Your task to perform on an android device: change text size in settings app Image 0: 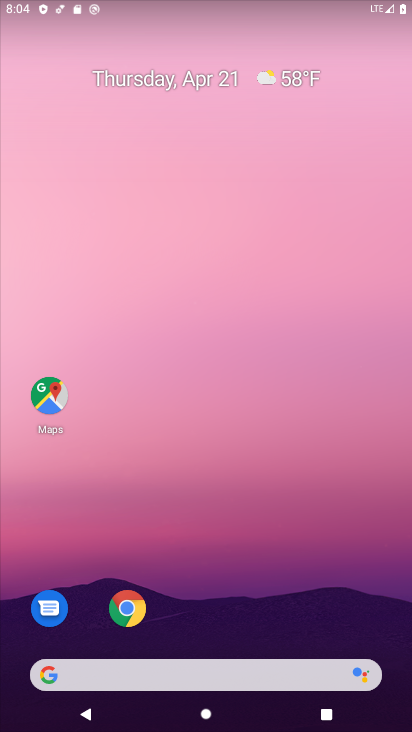
Step 0: drag from (323, 612) to (323, 81)
Your task to perform on an android device: change text size in settings app Image 1: 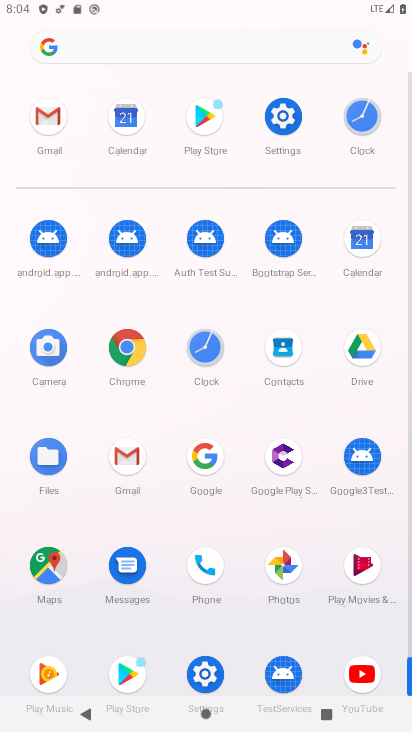
Step 1: click (286, 113)
Your task to perform on an android device: change text size in settings app Image 2: 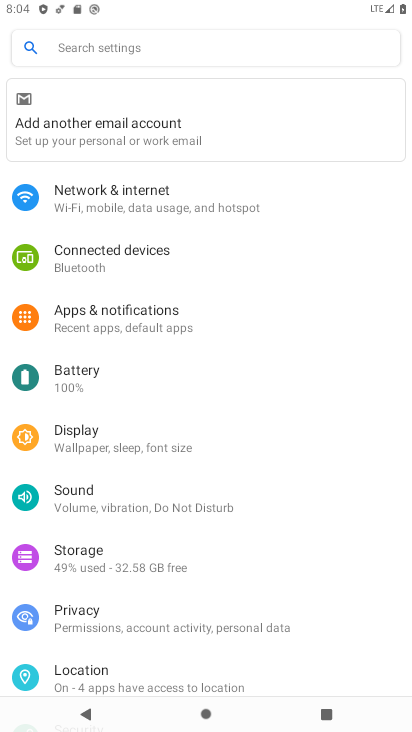
Step 2: click (188, 439)
Your task to perform on an android device: change text size in settings app Image 3: 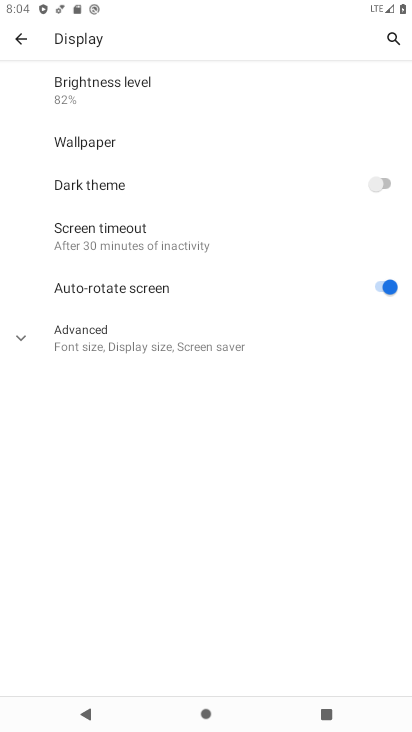
Step 3: click (19, 336)
Your task to perform on an android device: change text size in settings app Image 4: 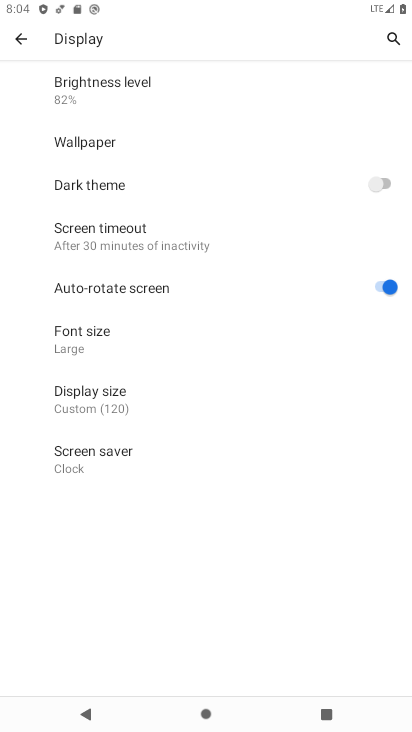
Step 4: click (104, 339)
Your task to perform on an android device: change text size in settings app Image 5: 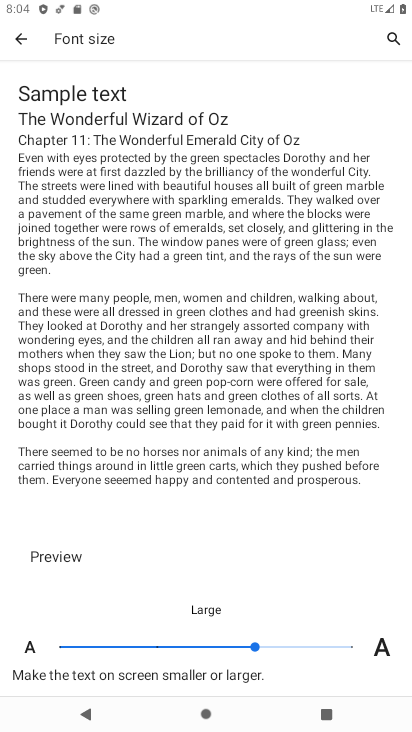
Step 5: click (348, 642)
Your task to perform on an android device: change text size in settings app Image 6: 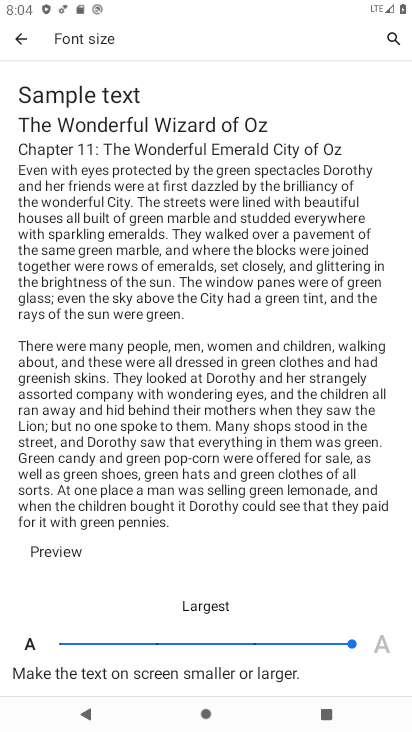
Step 6: task complete